Your task to perform on an android device: Open Google Chrome and click the shortcut for Amazon.com Image 0: 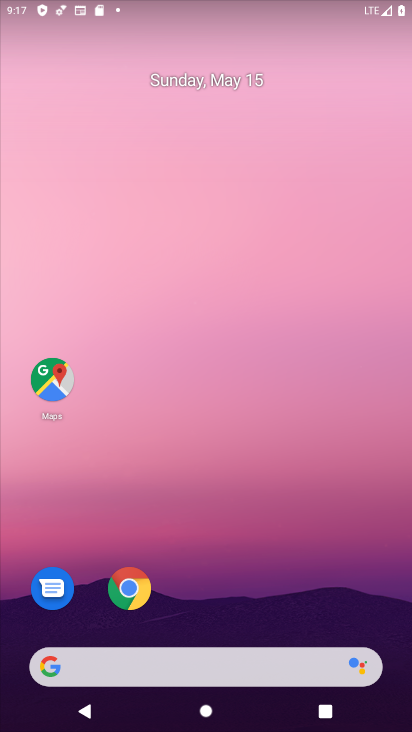
Step 0: click (130, 585)
Your task to perform on an android device: Open Google Chrome and click the shortcut for Amazon.com Image 1: 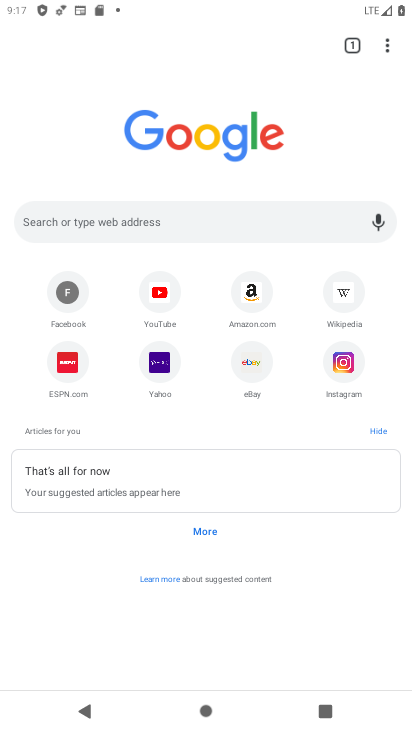
Step 1: click (255, 290)
Your task to perform on an android device: Open Google Chrome and click the shortcut for Amazon.com Image 2: 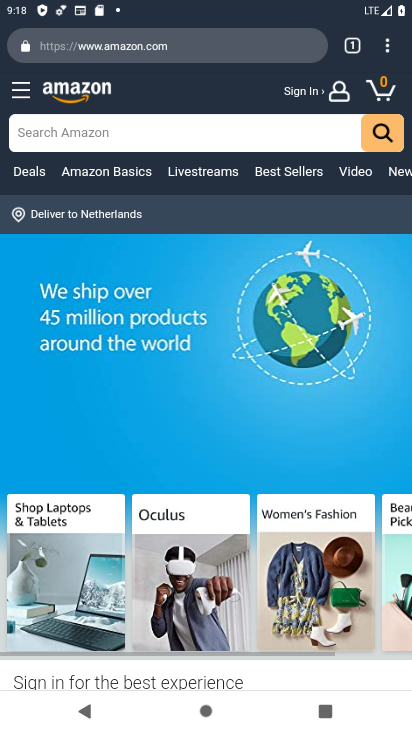
Step 2: task complete